Your task to perform on an android device: Turn on the flashlight Image 0: 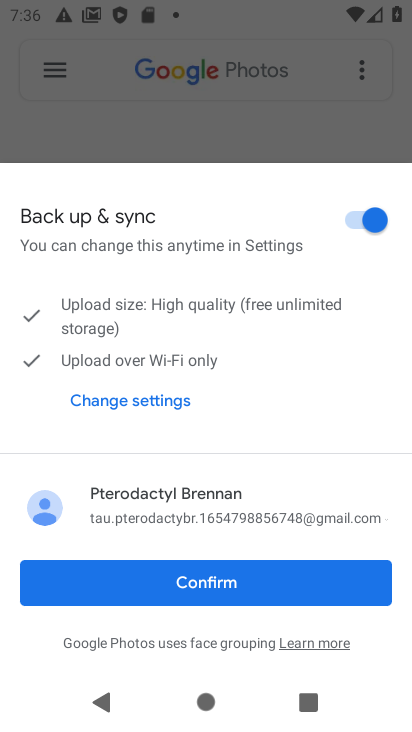
Step 0: press home button
Your task to perform on an android device: Turn on the flashlight Image 1: 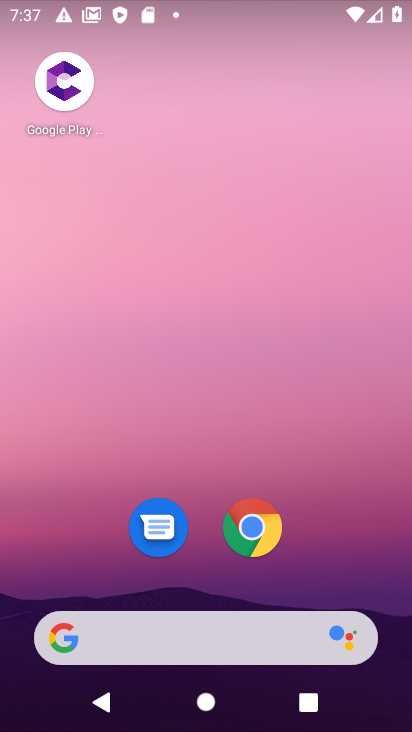
Step 1: task complete